Your task to perform on an android device: Open display settings Image 0: 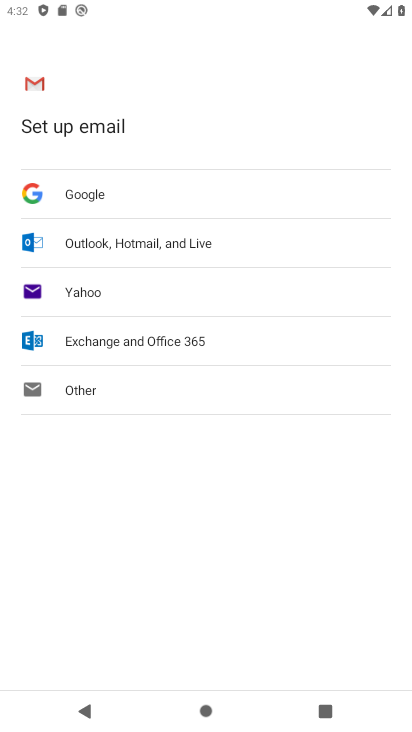
Step 0: press home button
Your task to perform on an android device: Open display settings Image 1: 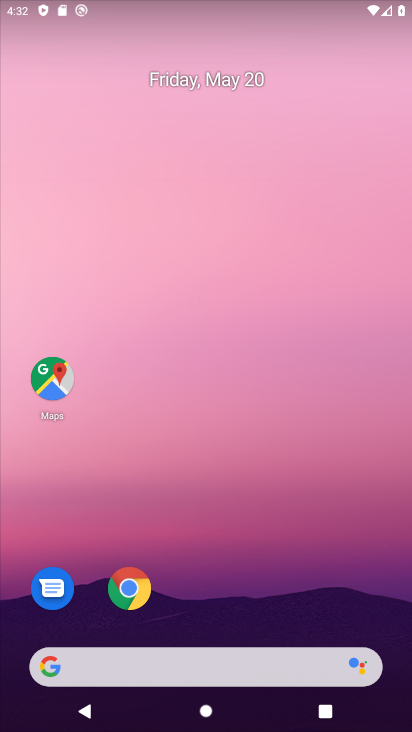
Step 1: drag from (239, 478) to (232, 217)
Your task to perform on an android device: Open display settings Image 2: 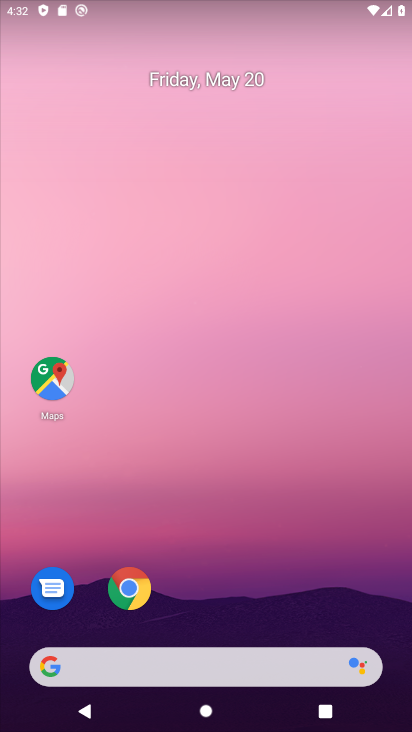
Step 2: drag from (199, 440) to (140, 32)
Your task to perform on an android device: Open display settings Image 3: 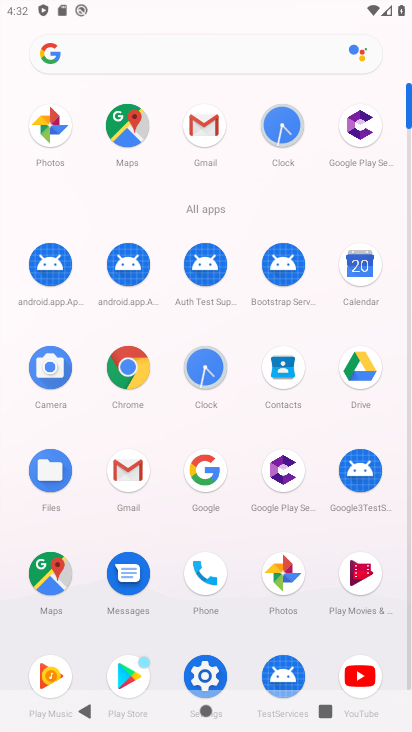
Step 3: click (203, 674)
Your task to perform on an android device: Open display settings Image 4: 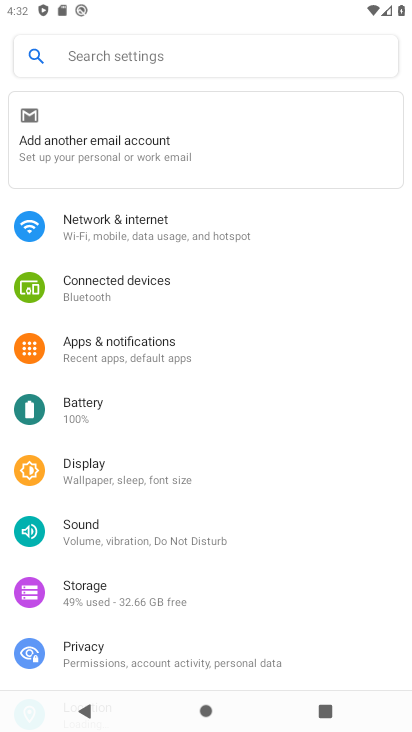
Step 4: click (96, 470)
Your task to perform on an android device: Open display settings Image 5: 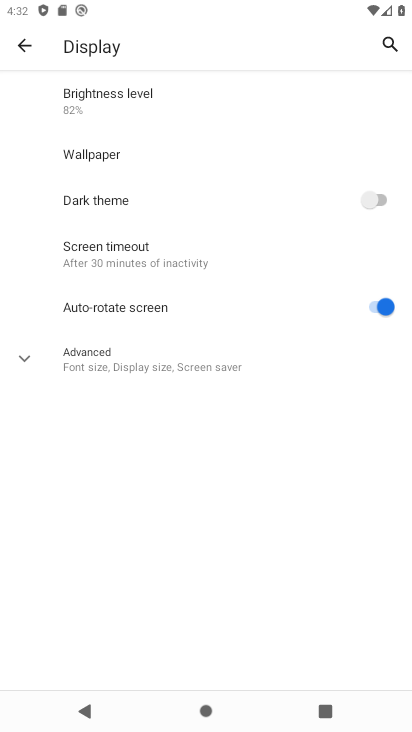
Step 5: task complete